Your task to perform on an android device: Search for macbook pro 13 inch on bestbuy, select the first entry, add it to the cart, then select checkout. Image 0: 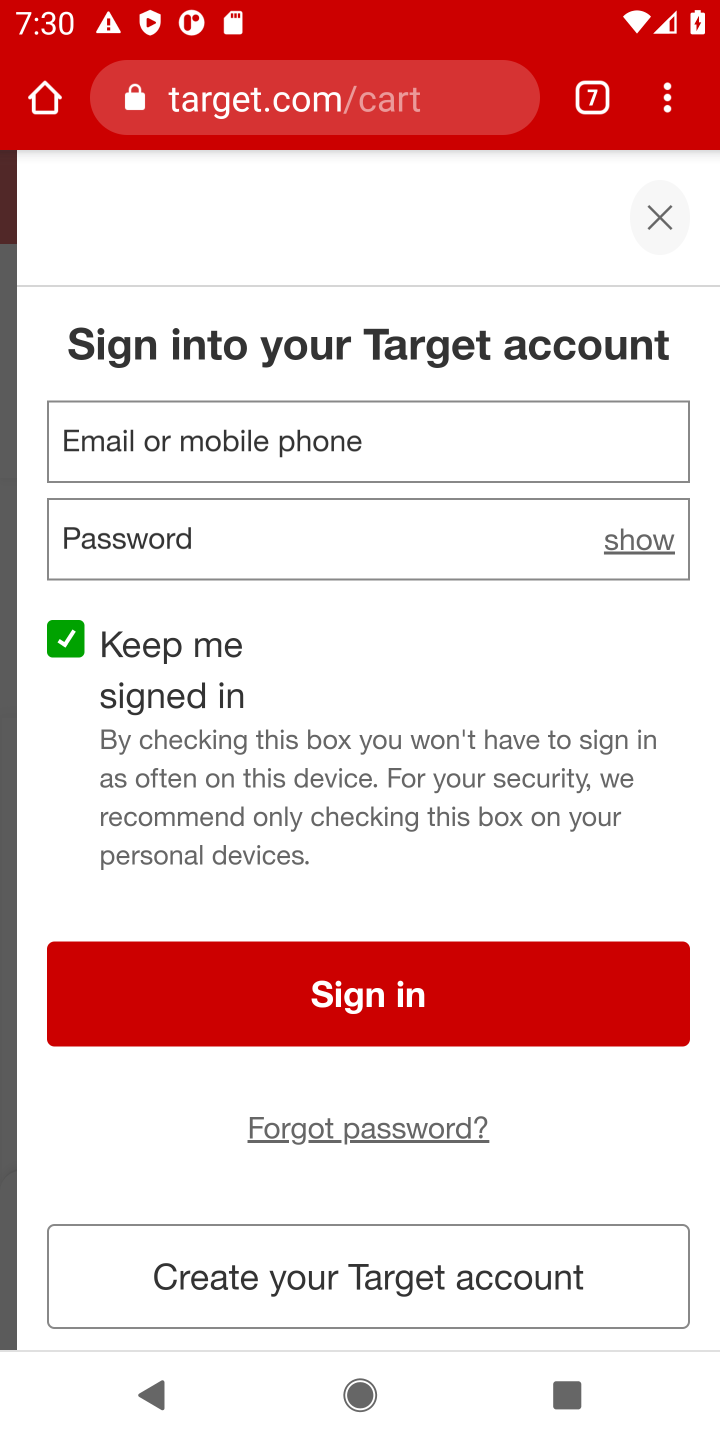
Step 0: press home button
Your task to perform on an android device: Search for macbook pro 13 inch on bestbuy, select the first entry, add it to the cart, then select checkout. Image 1: 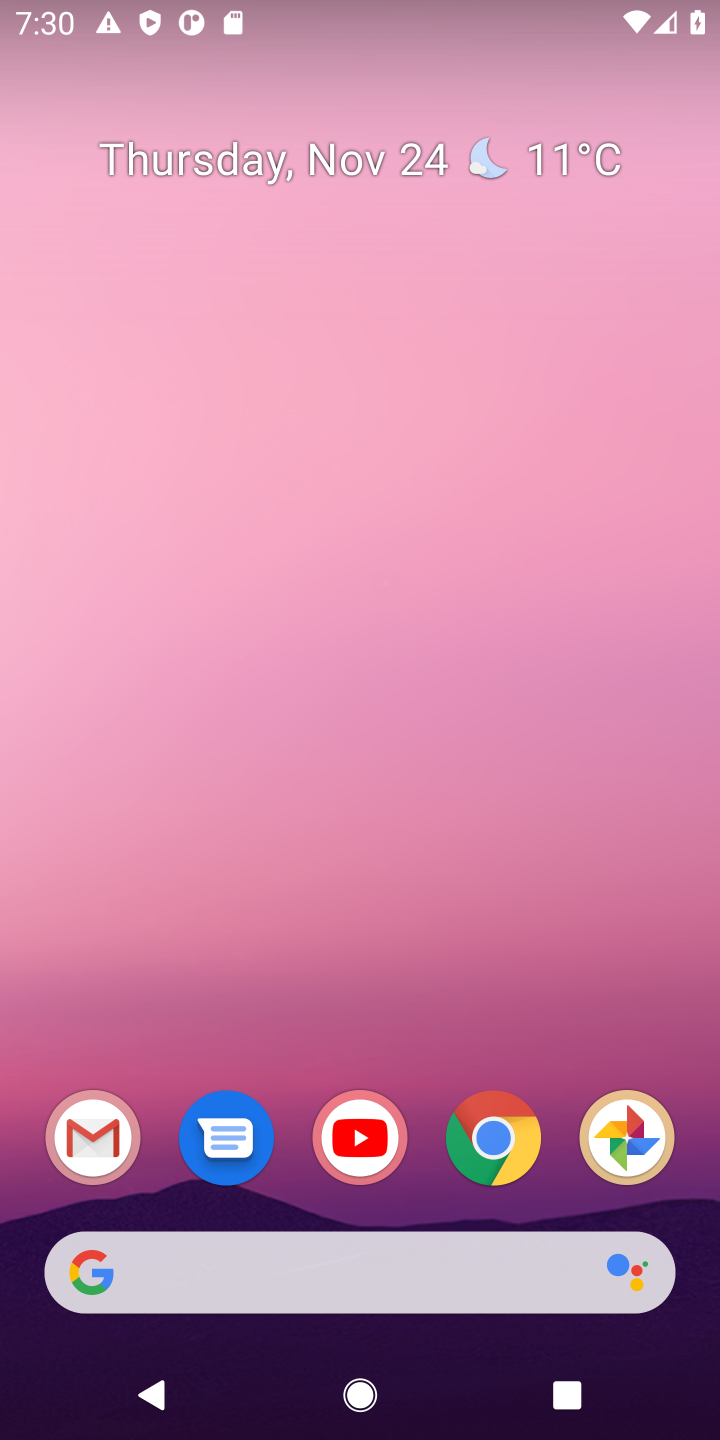
Step 1: click (369, 1265)
Your task to perform on an android device: Search for macbook pro 13 inch on bestbuy, select the first entry, add it to the cart, then select checkout. Image 2: 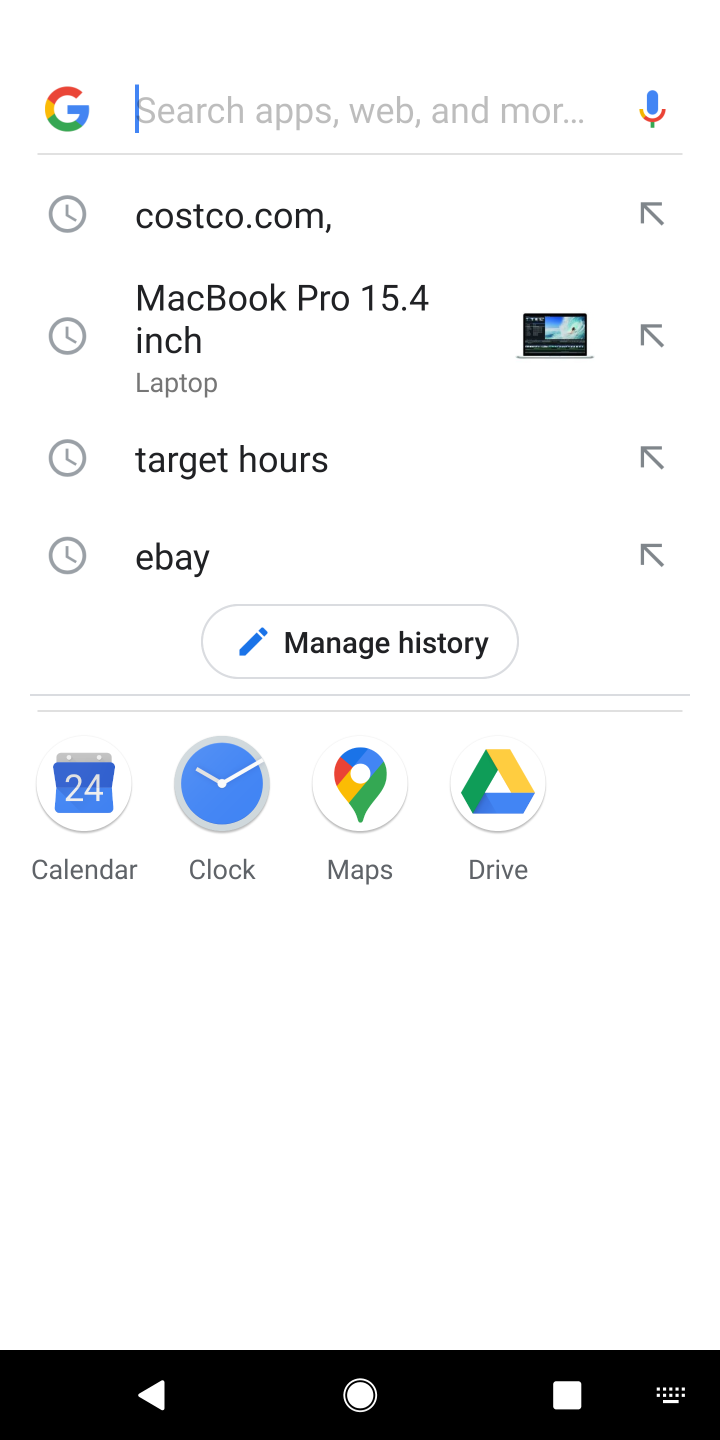
Step 2: type "macbook pro 13 inch"
Your task to perform on an android device: Search for macbook pro 13 inch on bestbuy, select the first entry, add it to the cart, then select checkout. Image 3: 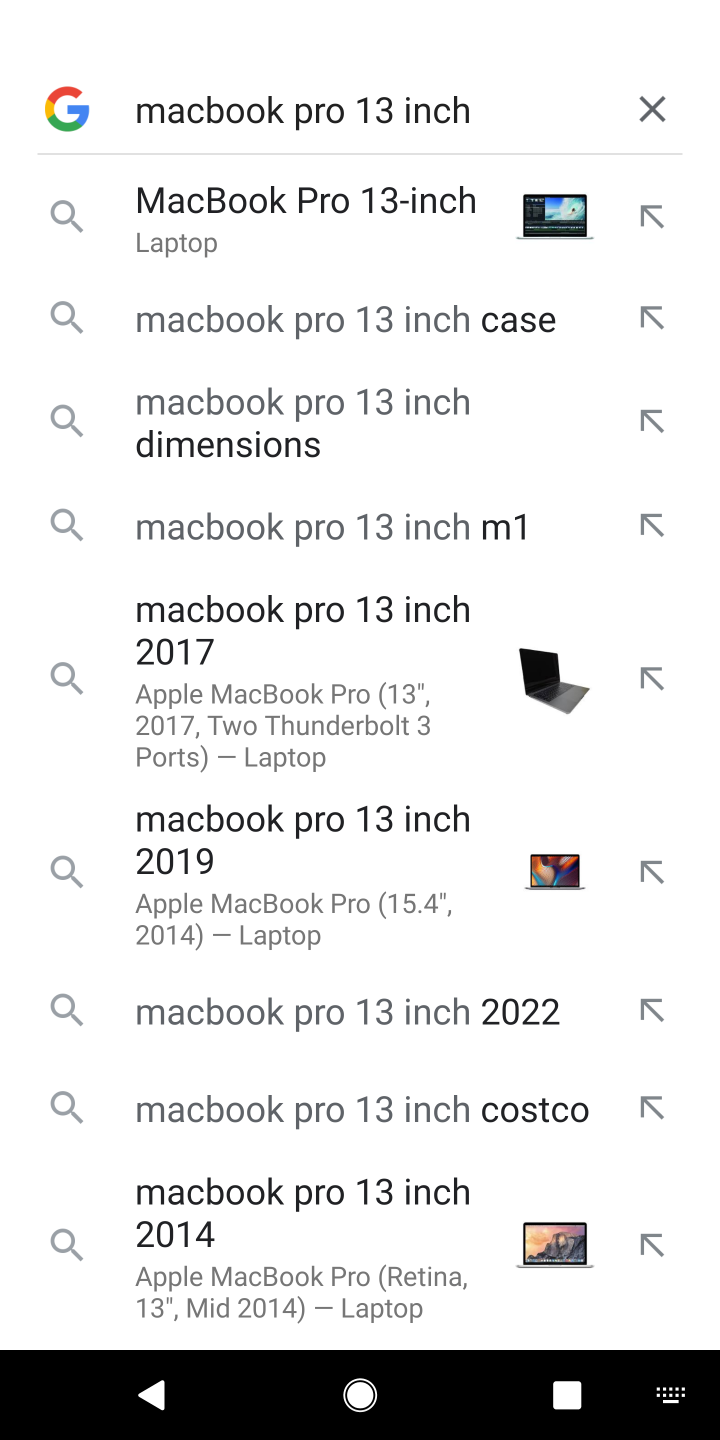
Step 3: click (401, 218)
Your task to perform on an android device: Search for macbook pro 13 inch on bestbuy, select the first entry, add it to the cart, then select checkout. Image 4: 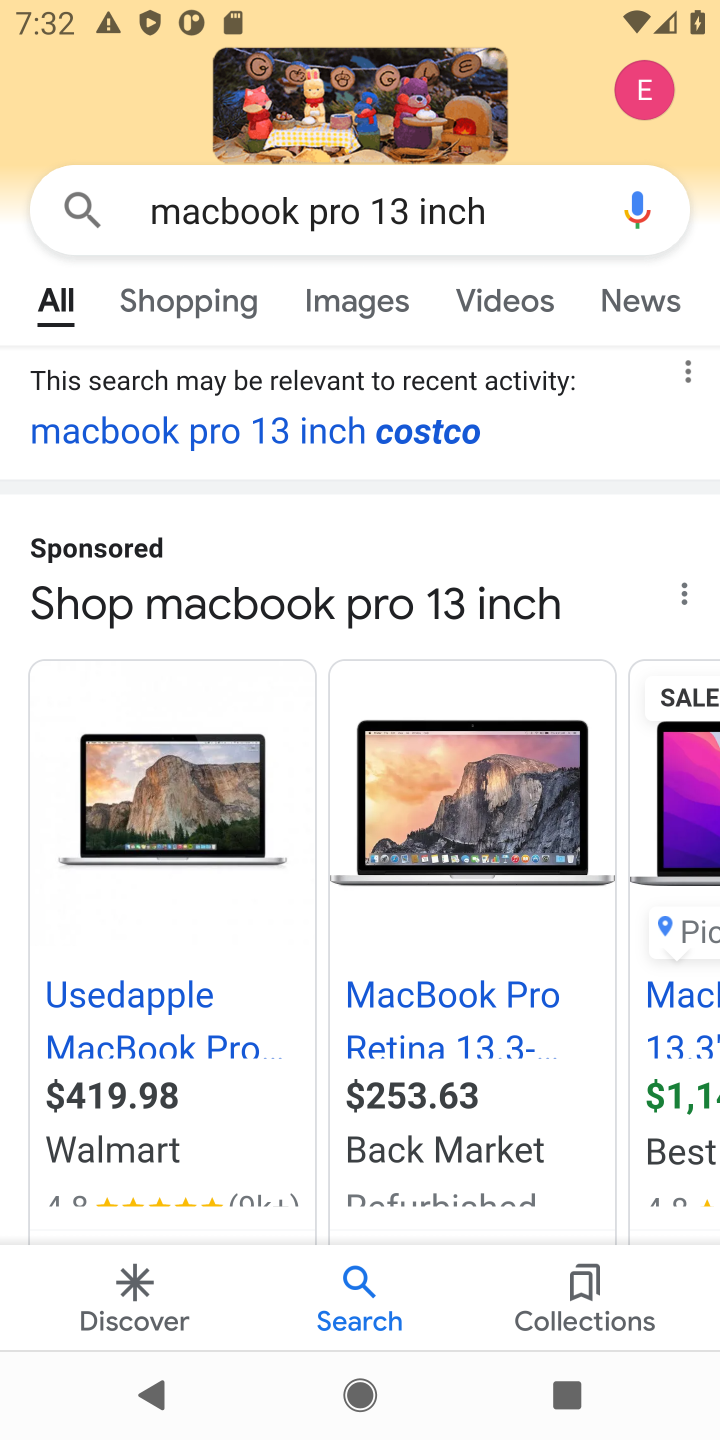
Step 4: drag from (206, 871) to (242, 685)
Your task to perform on an android device: Search for macbook pro 13 inch on bestbuy, select the first entry, add it to the cart, then select checkout. Image 5: 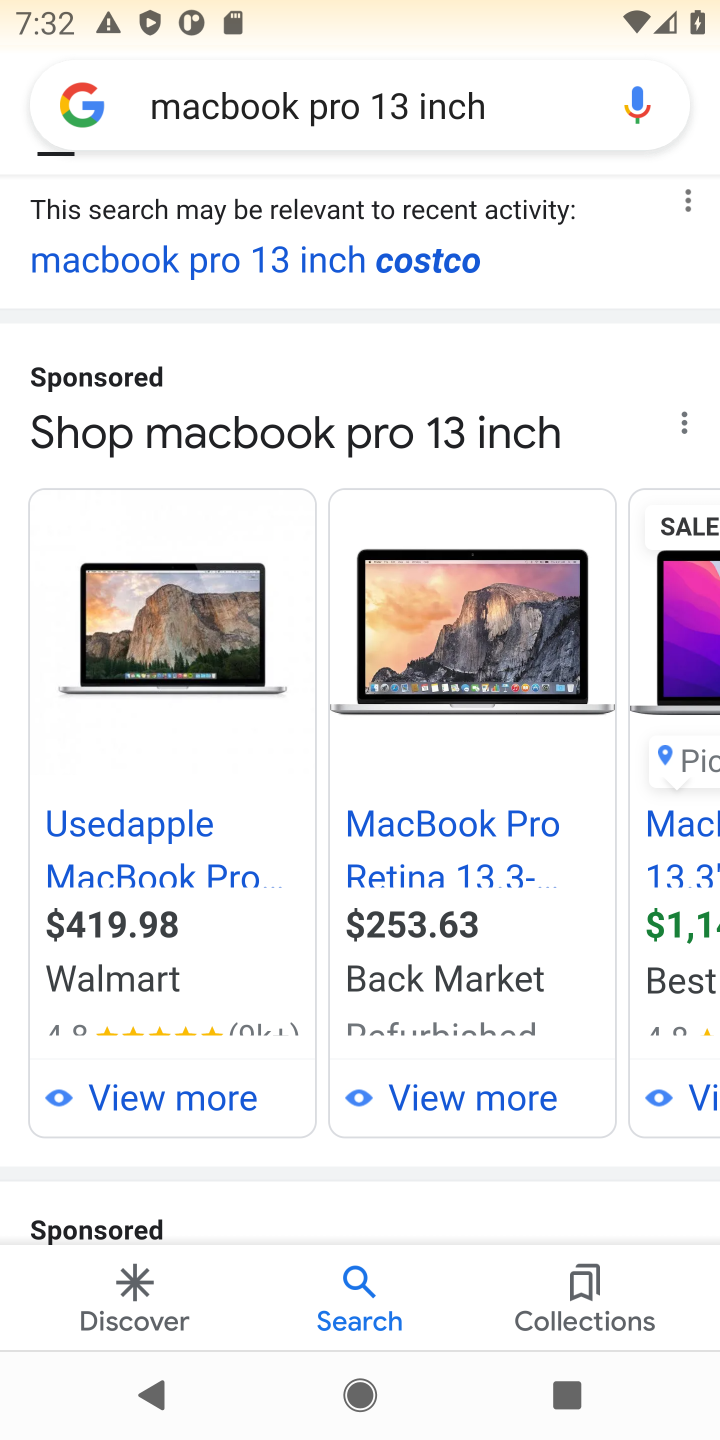
Step 5: drag from (208, 880) to (228, 744)
Your task to perform on an android device: Search for macbook pro 13 inch on bestbuy, select the first entry, add it to the cart, then select checkout. Image 6: 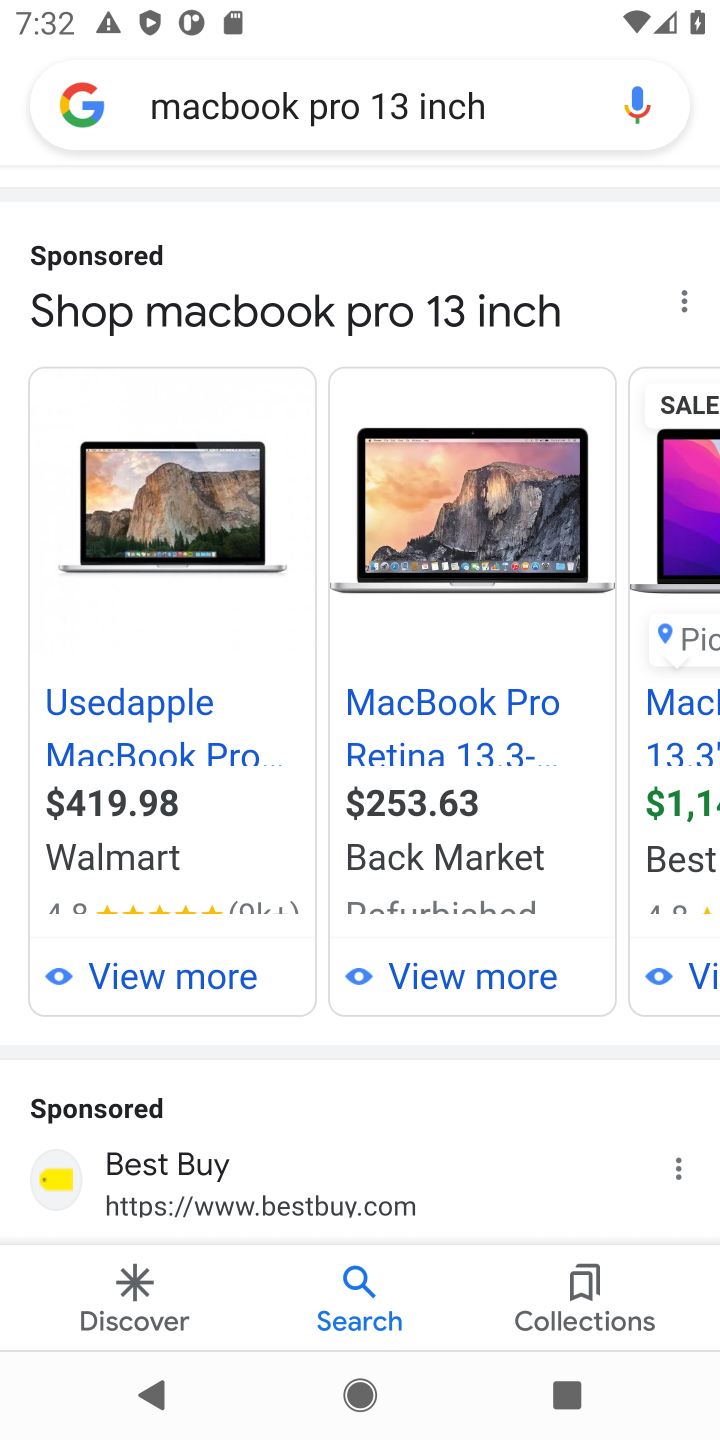
Step 6: drag from (296, 1149) to (364, 859)
Your task to perform on an android device: Search for macbook pro 13 inch on bestbuy, select the first entry, add it to the cart, then select checkout. Image 7: 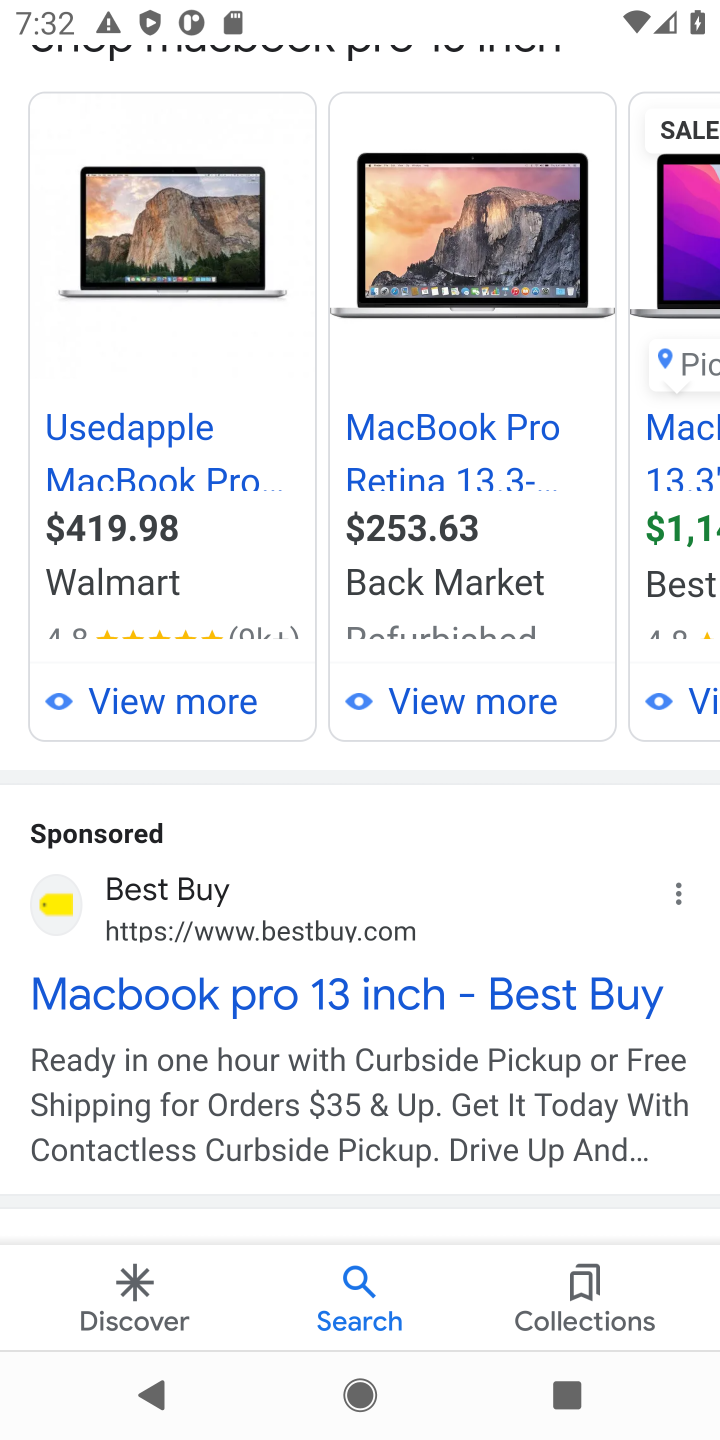
Step 7: click (227, 999)
Your task to perform on an android device: Search for macbook pro 13 inch on bestbuy, select the first entry, add it to the cart, then select checkout. Image 8: 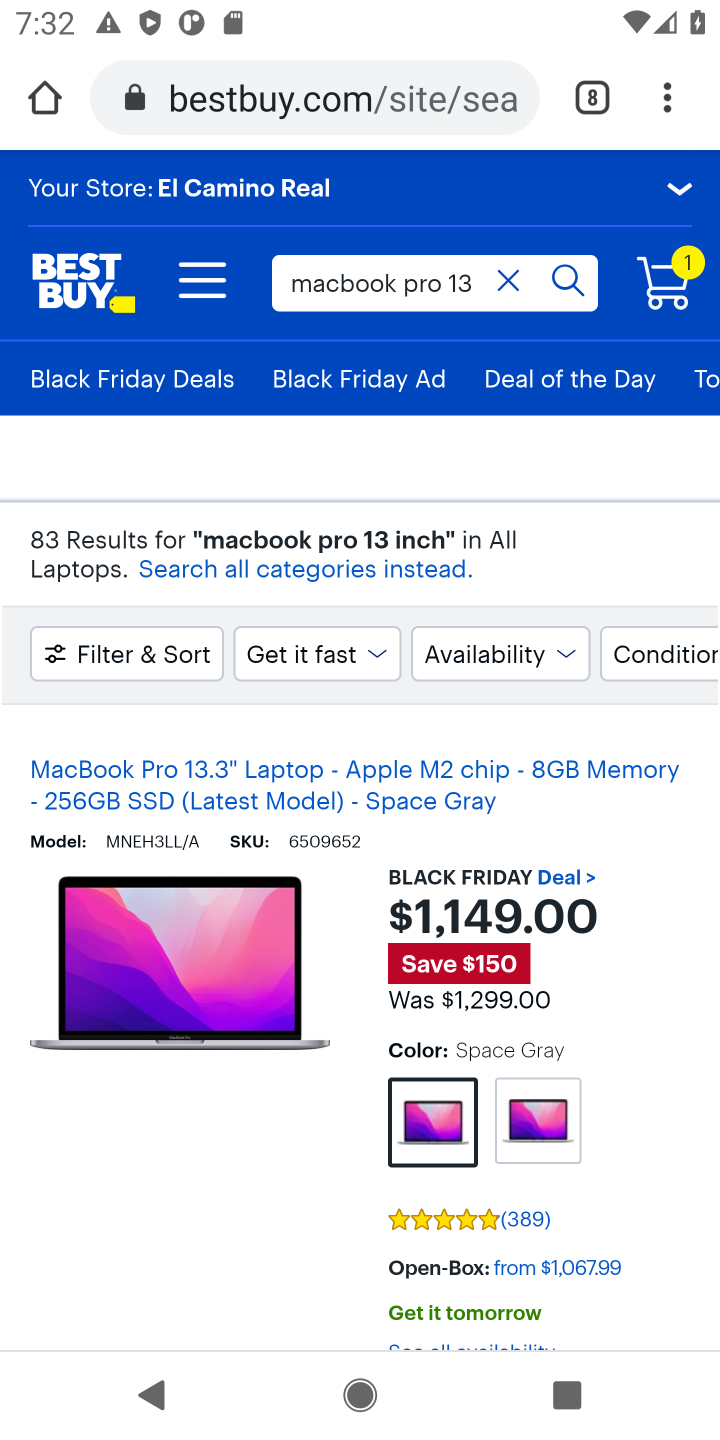
Step 8: drag from (569, 1220) to (588, 929)
Your task to perform on an android device: Search for macbook pro 13 inch on bestbuy, select the first entry, add it to the cart, then select checkout. Image 9: 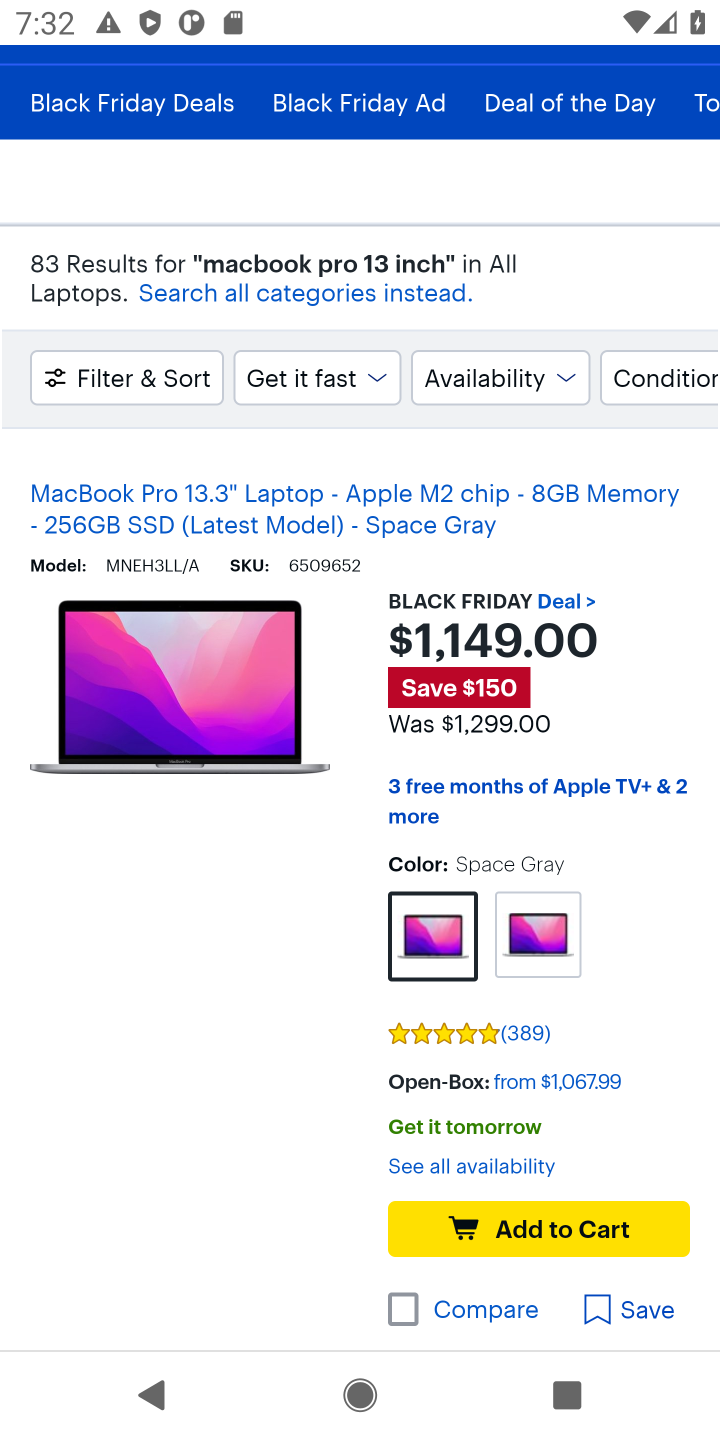
Step 9: click (537, 1200)
Your task to perform on an android device: Search for macbook pro 13 inch on bestbuy, select the first entry, add it to the cart, then select checkout. Image 10: 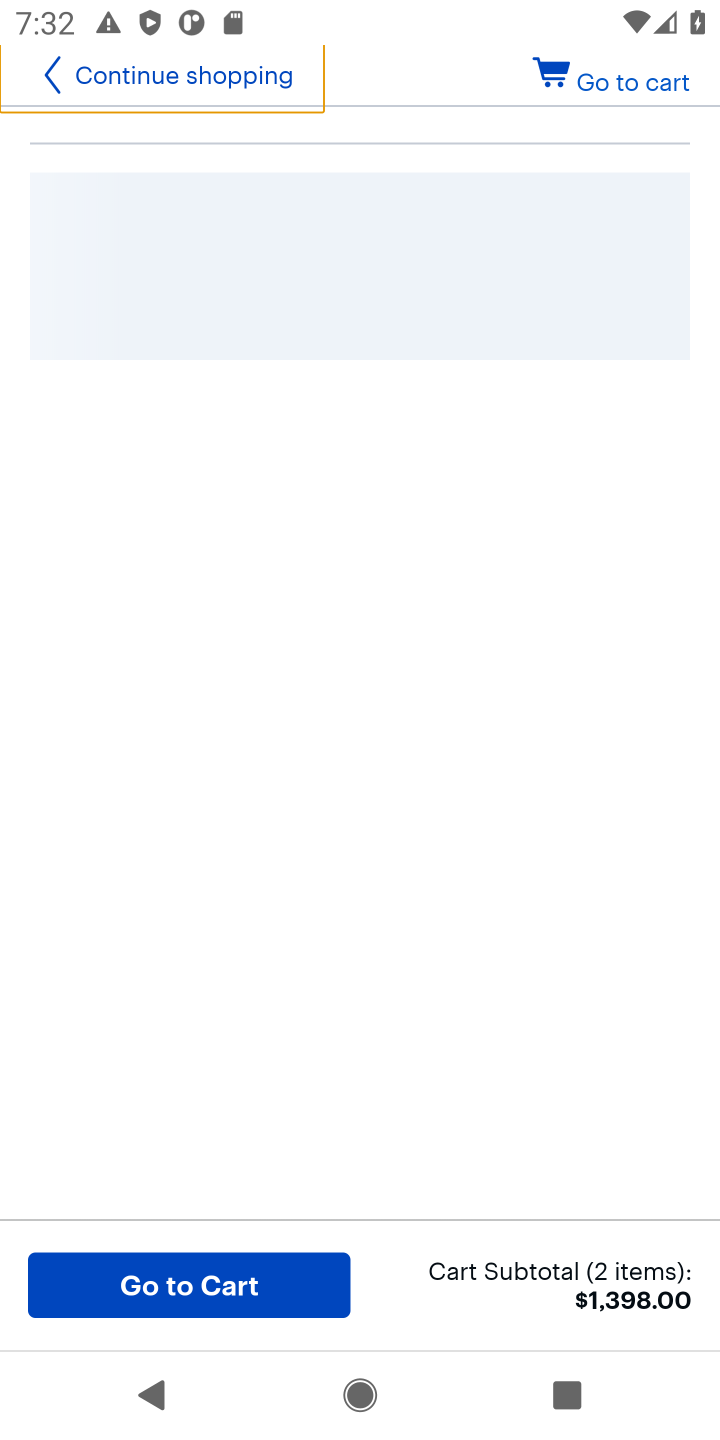
Step 10: click (264, 1278)
Your task to perform on an android device: Search for macbook pro 13 inch on bestbuy, select the first entry, add it to the cart, then select checkout. Image 11: 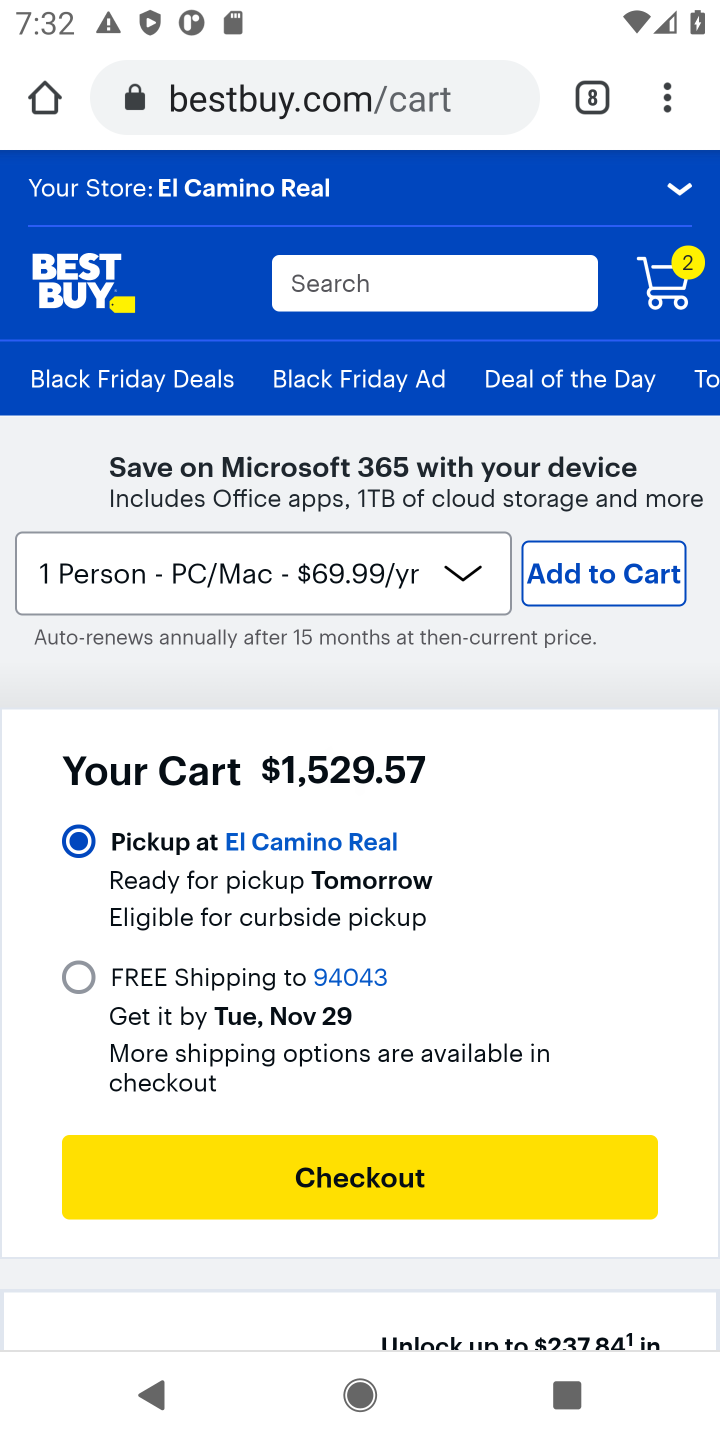
Step 11: click (351, 1191)
Your task to perform on an android device: Search for macbook pro 13 inch on bestbuy, select the first entry, add it to the cart, then select checkout. Image 12: 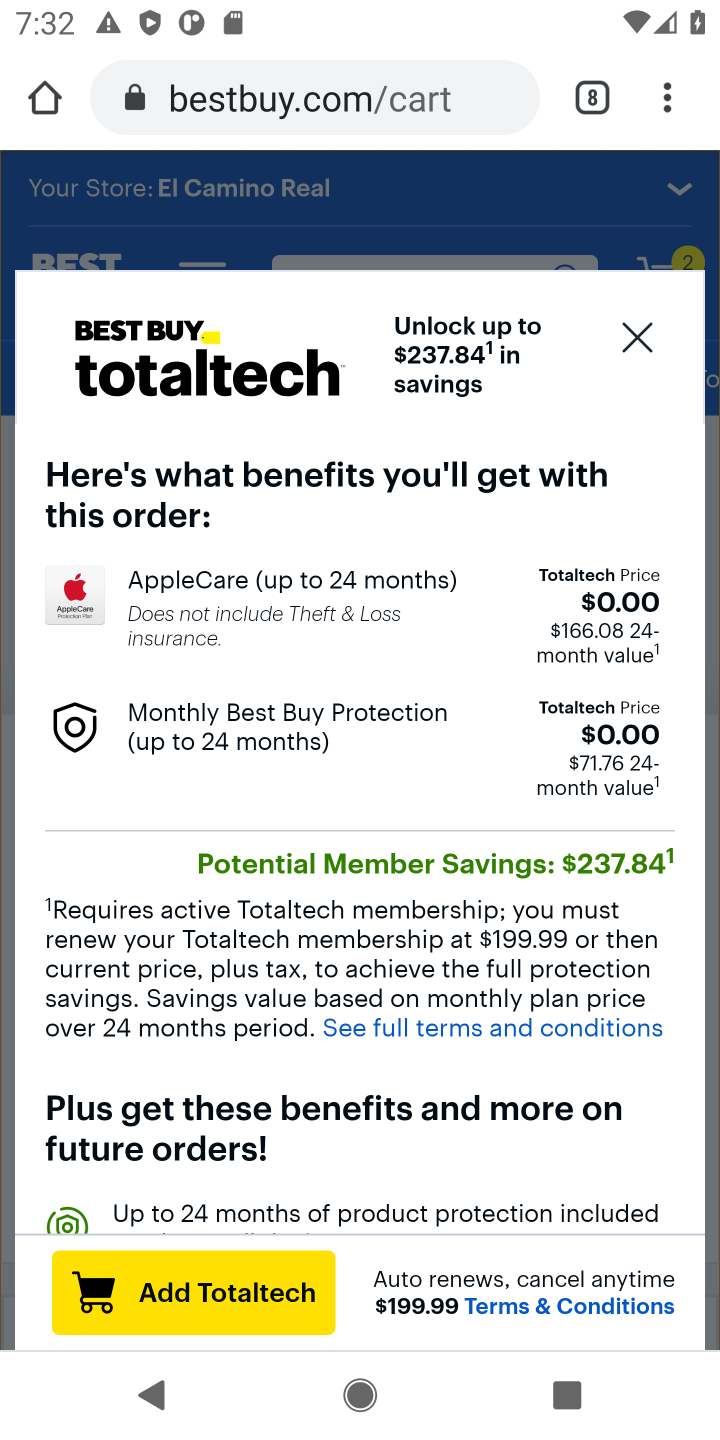
Step 12: click (645, 334)
Your task to perform on an android device: Search for macbook pro 13 inch on bestbuy, select the first entry, add it to the cart, then select checkout. Image 13: 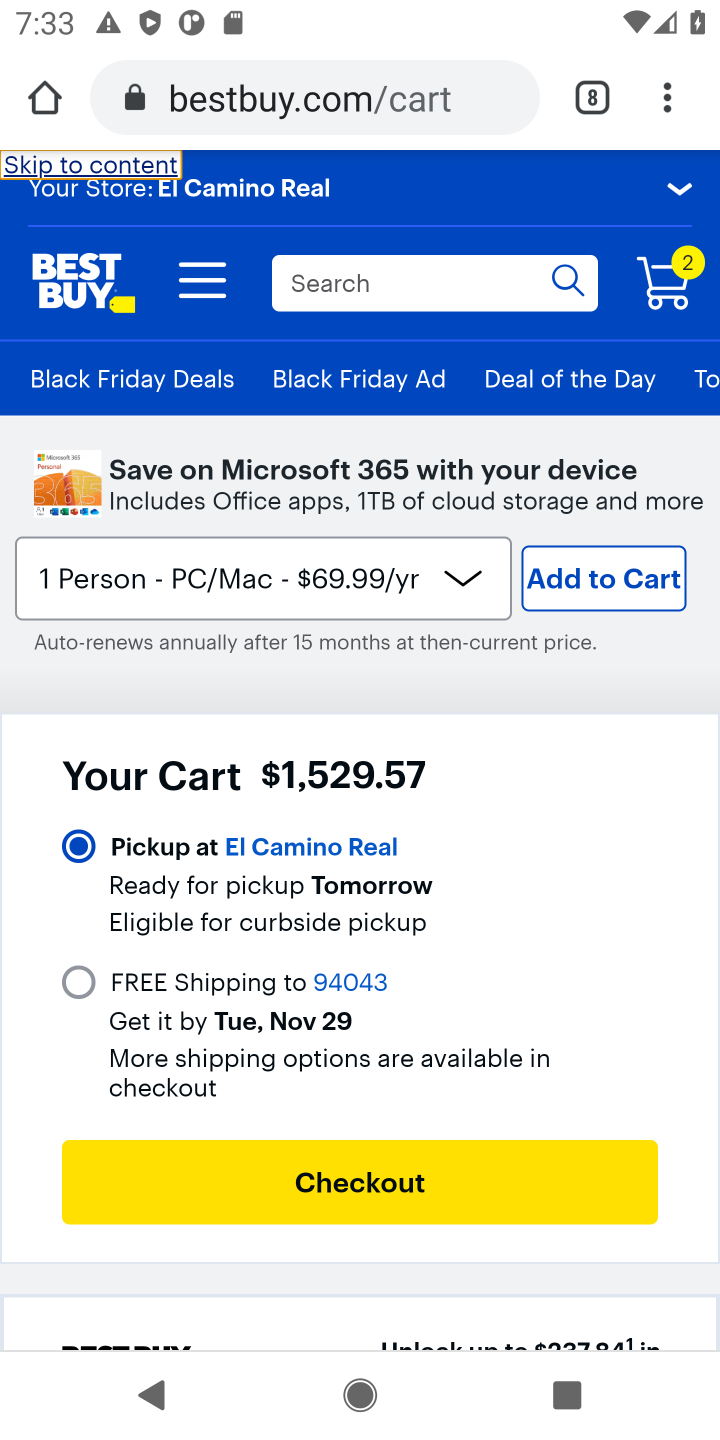
Step 13: click (84, 966)
Your task to perform on an android device: Search for macbook pro 13 inch on bestbuy, select the first entry, add it to the cart, then select checkout. Image 14: 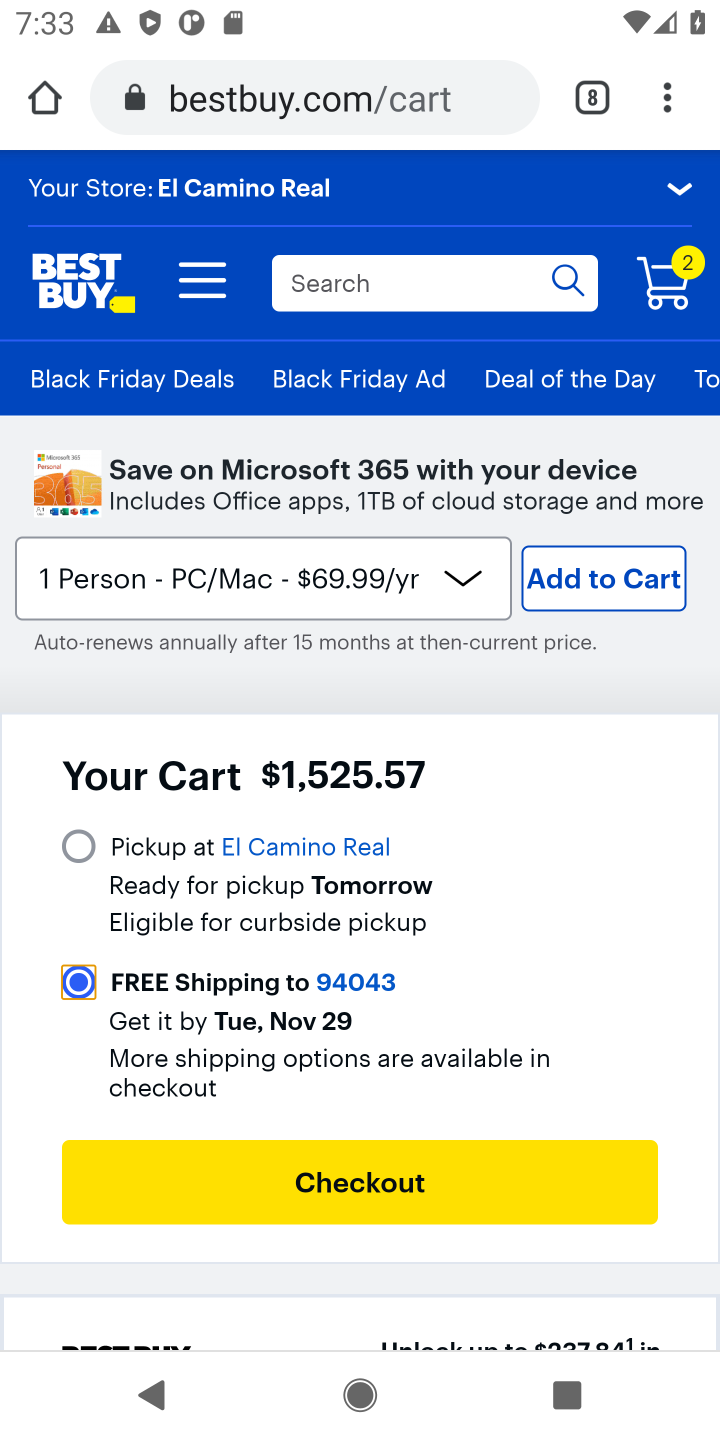
Step 14: click (393, 1219)
Your task to perform on an android device: Search for macbook pro 13 inch on bestbuy, select the first entry, add it to the cart, then select checkout. Image 15: 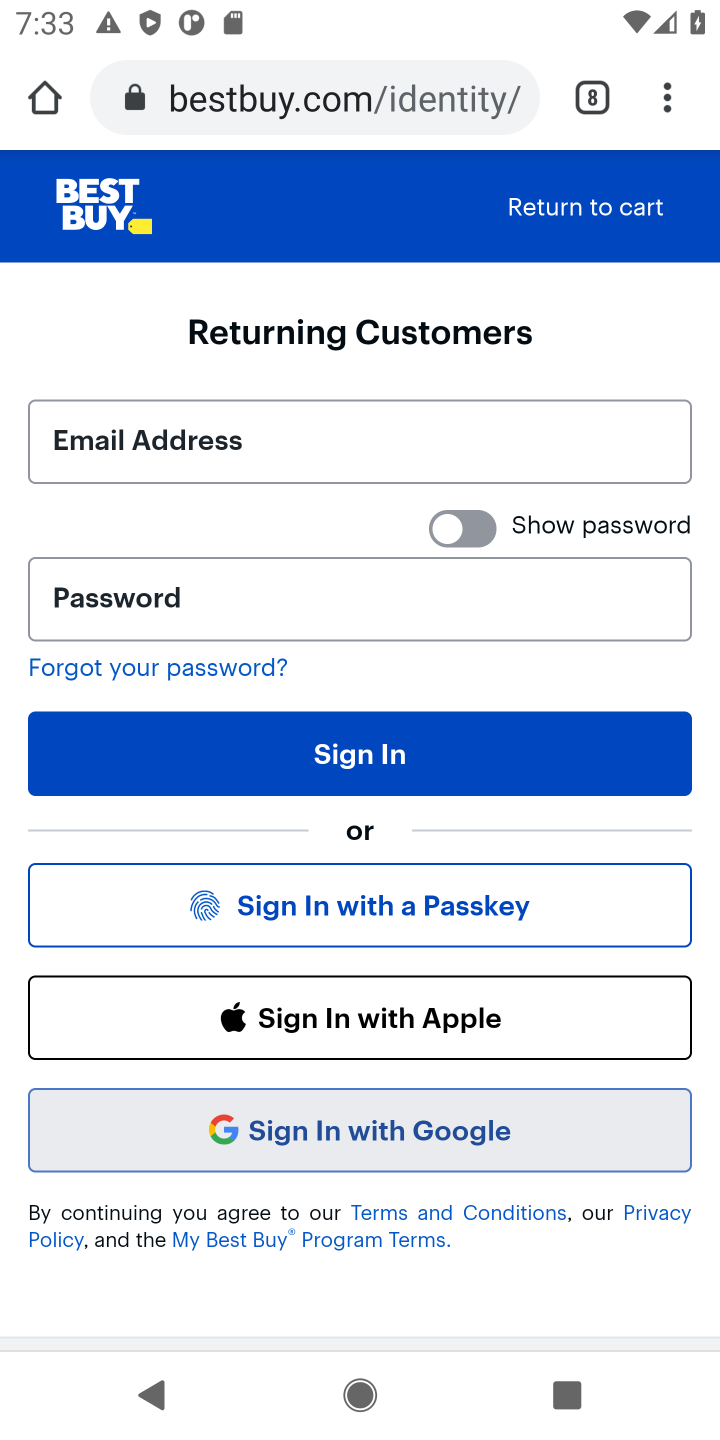
Step 15: task complete